Your task to perform on an android device: turn on sleep mode Image 0: 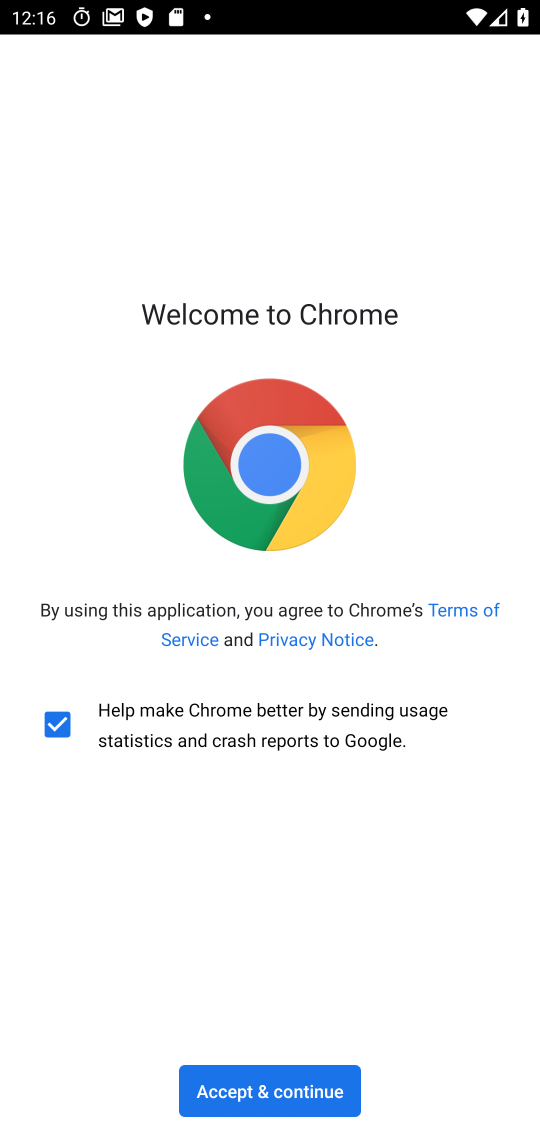
Step 0: press home button
Your task to perform on an android device: turn on sleep mode Image 1: 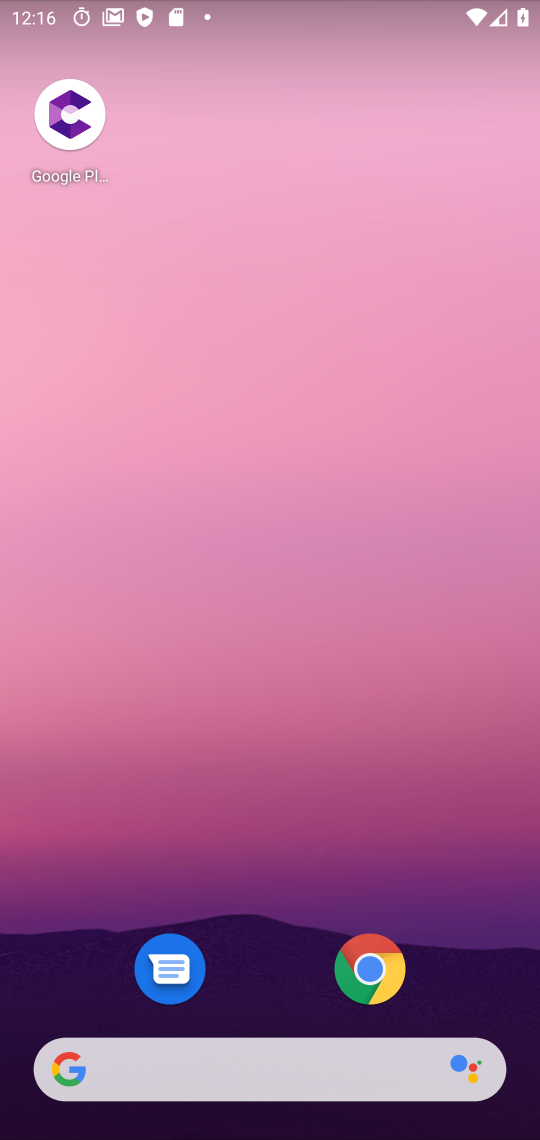
Step 1: drag from (274, 1074) to (325, 40)
Your task to perform on an android device: turn on sleep mode Image 2: 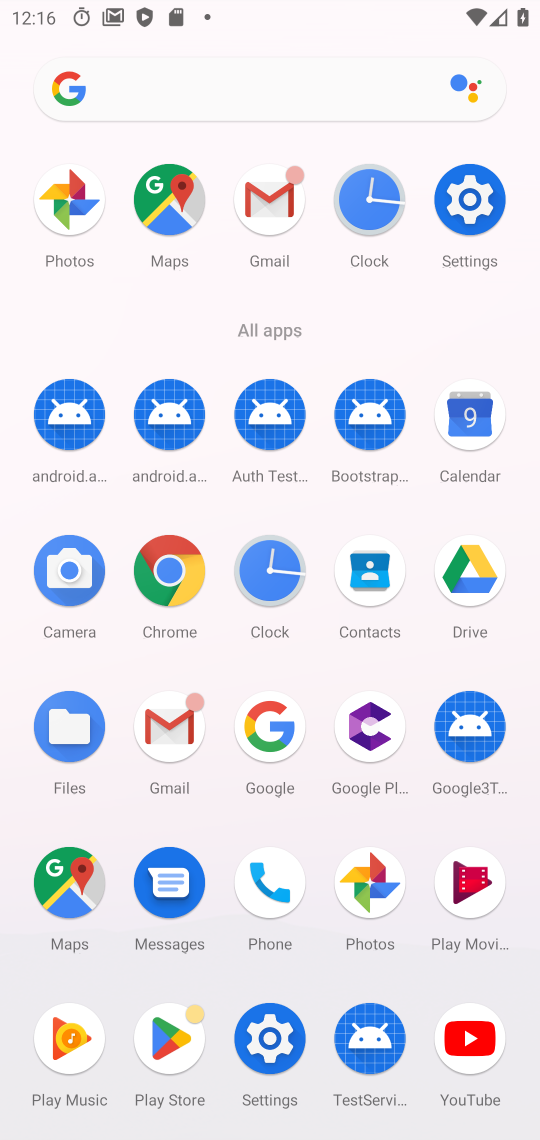
Step 2: click (446, 209)
Your task to perform on an android device: turn on sleep mode Image 3: 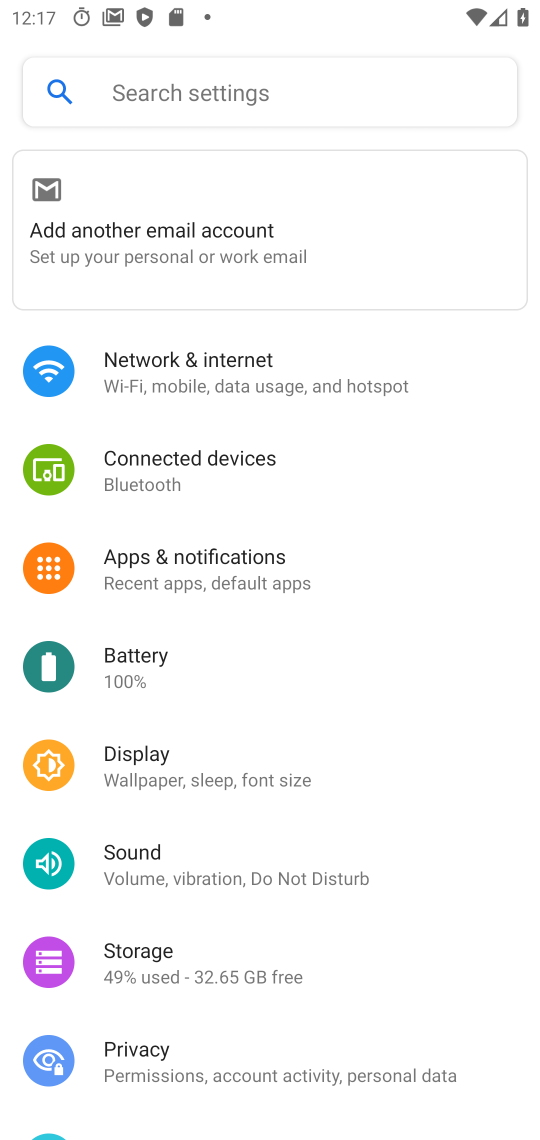
Step 3: click (175, 770)
Your task to perform on an android device: turn on sleep mode Image 4: 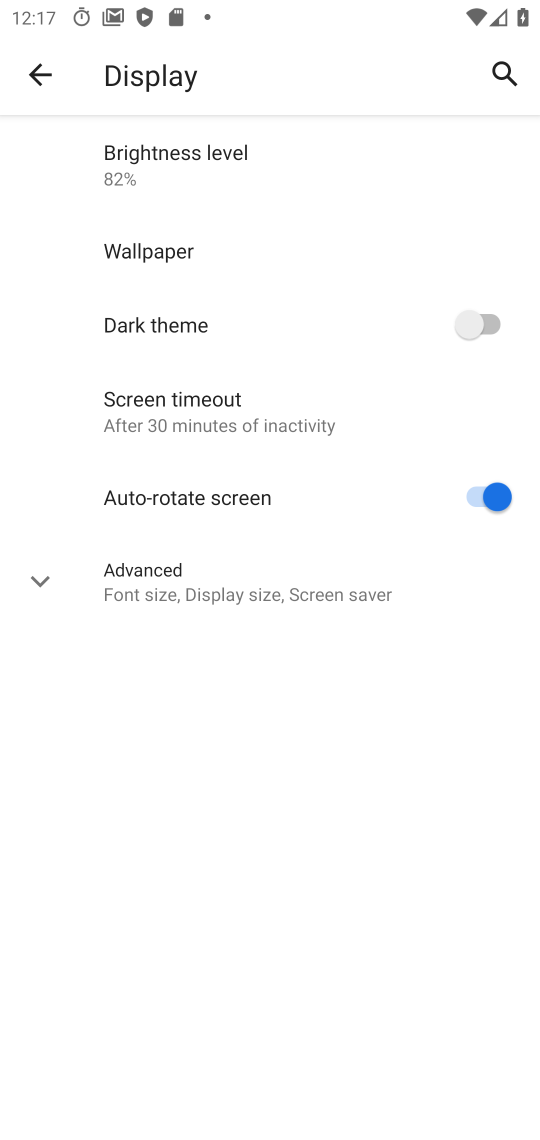
Step 4: task complete